Your task to perform on an android device: Open display settings Image 0: 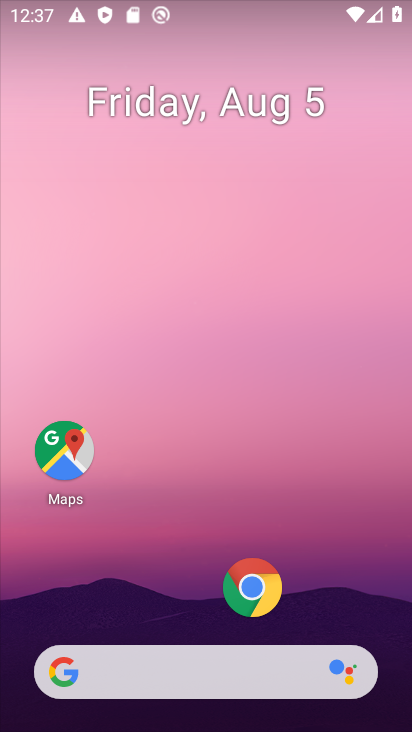
Step 0: drag from (173, 583) to (232, 6)
Your task to perform on an android device: Open display settings Image 1: 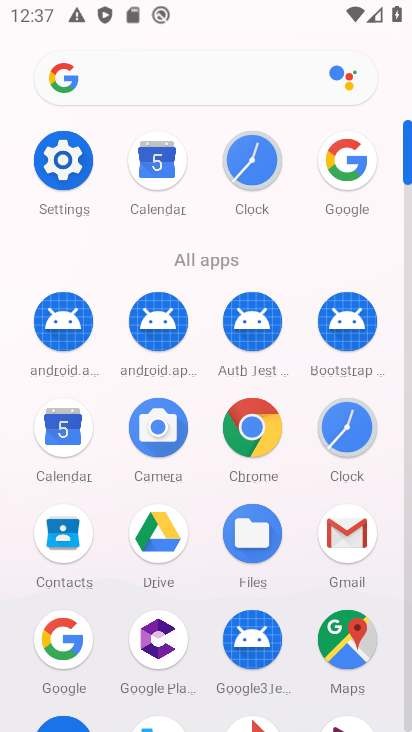
Step 1: click (53, 163)
Your task to perform on an android device: Open display settings Image 2: 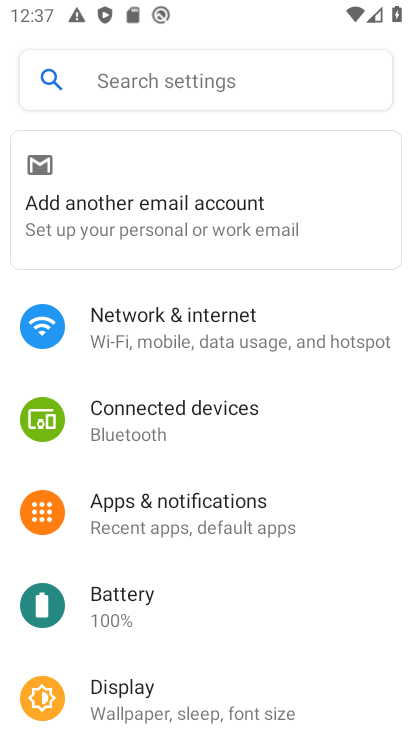
Step 2: click (133, 709)
Your task to perform on an android device: Open display settings Image 3: 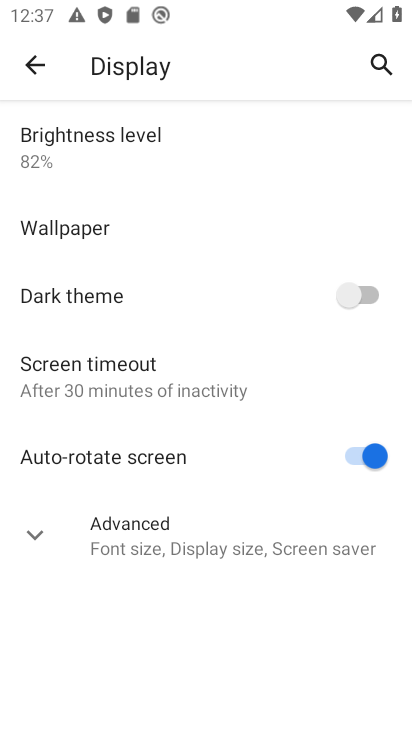
Step 3: task complete